Your task to perform on an android device: turn pop-ups off in chrome Image 0: 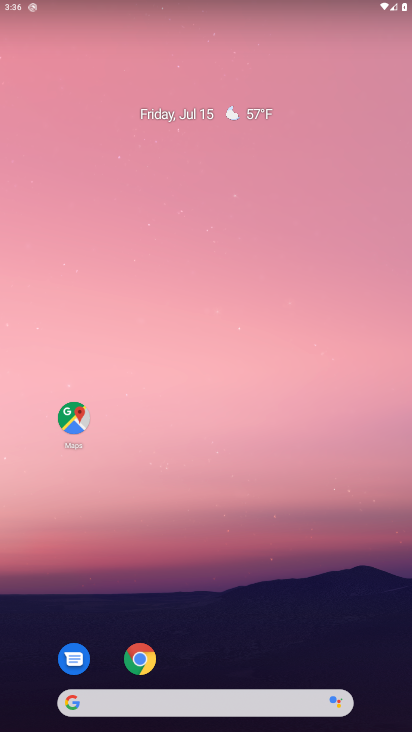
Step 0: click (149, 664)
Your task to perform on an android device: turn pop-ups off in chrome Image 1: 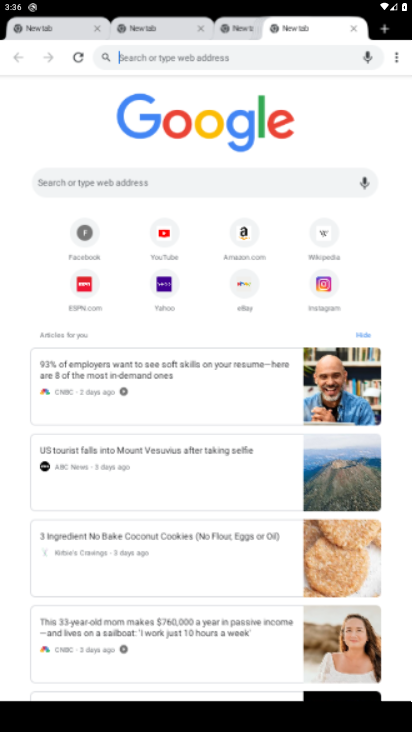
Step 1: click (399, 53)
Your task to perform on an android device: turn pop-ups off in chrome Image 2: 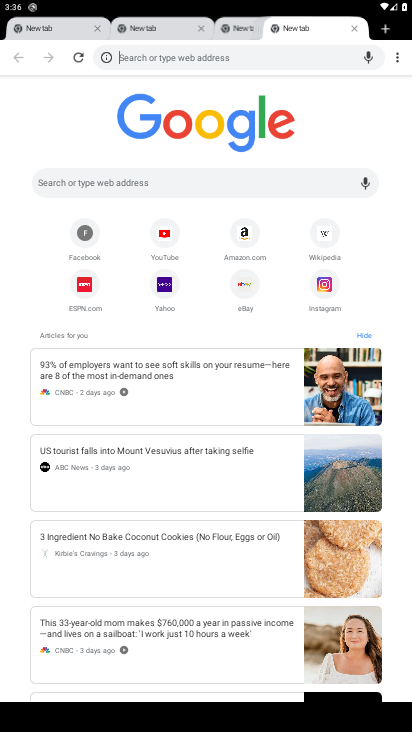
Step 2: click (395, 56)
Your task to perform on an android device: turn pop-ups off in chrome Image 3: 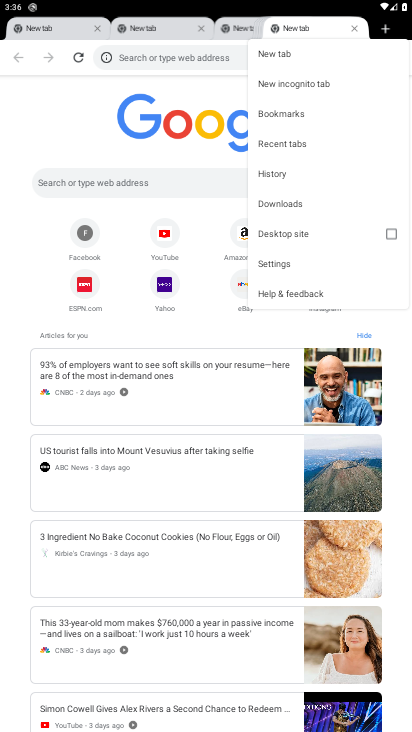
Step 3: click (267, 267)
Your task to perform on an android device: turn pop-ups off in chrome Image 4: 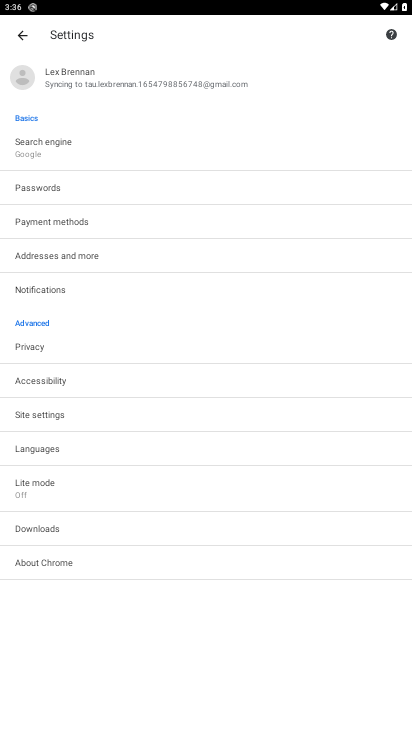
Step 4: click (36, 407)
Your task to perform on an android device: turn pop-ups off in chrome Image 5: 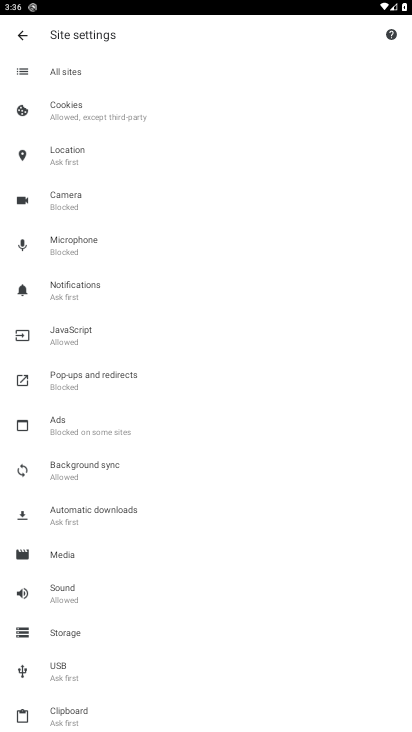
Step 5: click (74, 384)
Your task to perform on an android device: turn pop-ups off in chrome Image 6: 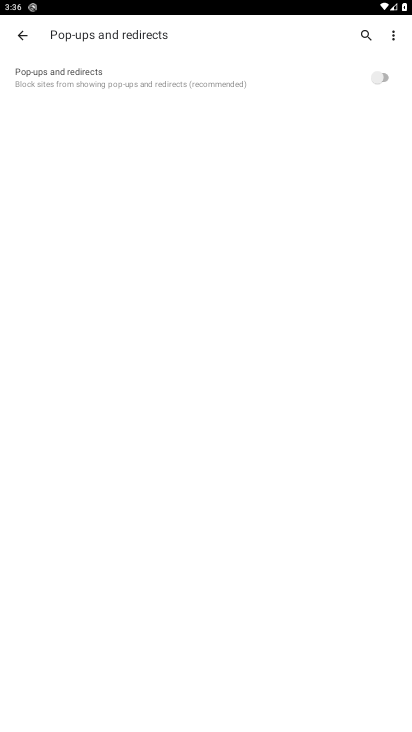
Step 6: task complete